Your task to perform on an android device: delete browsing data in the chrome app Image 0: 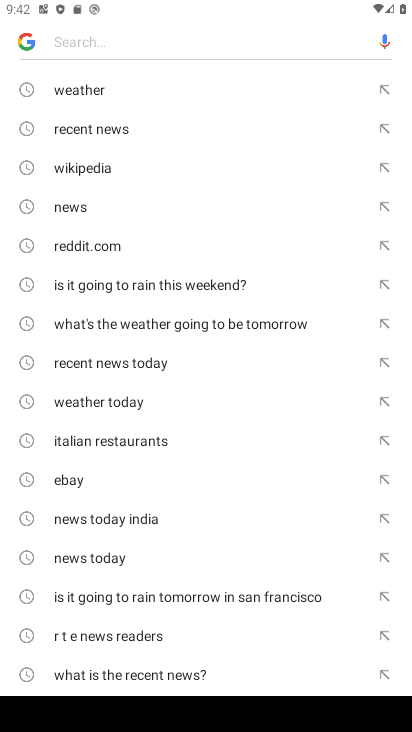
Step 0: press home button
Your task to perform on an android device: delete browsing data in the chrome app Image 1: 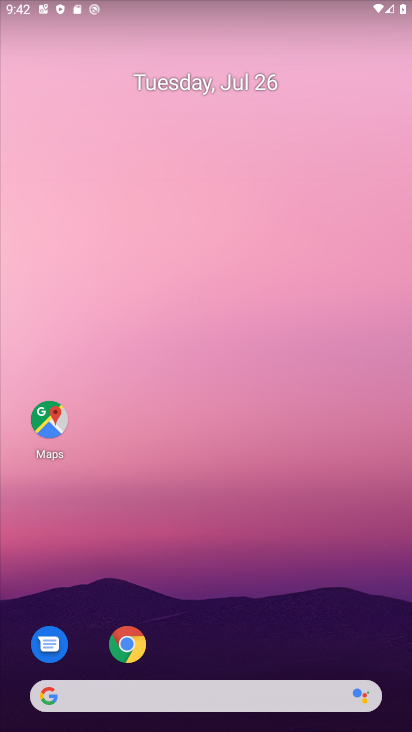
Step 1: click (125, 647)
Your task to perform on an android device: delete browsing data in the chrome app Image 2: 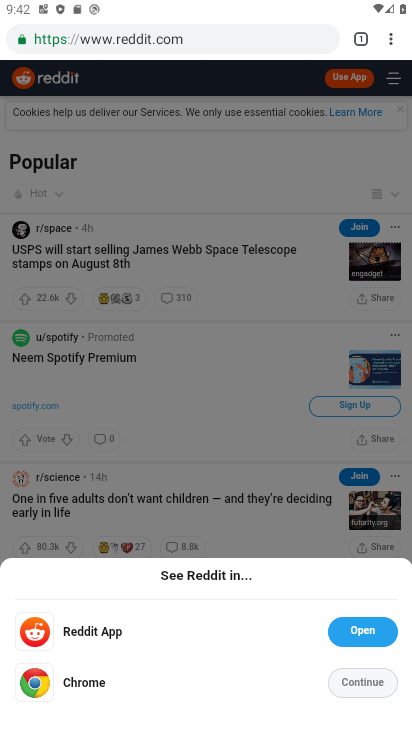
Step 2: click (391, 36)
Your task to perform on an android device: delete browsing data in the chrome app Image 3: 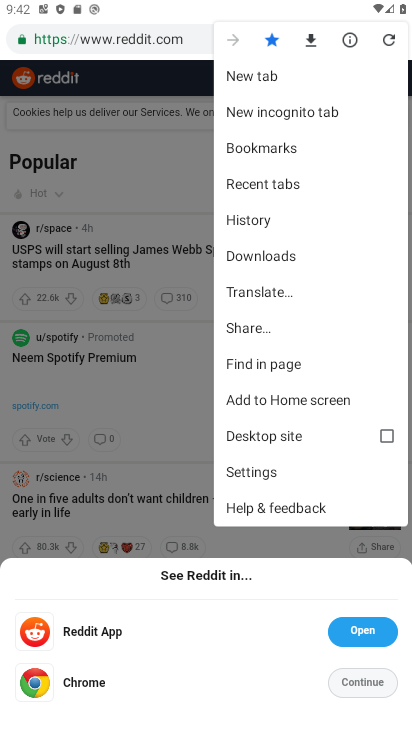
Step 3: click (251, 217)
Your task to perform on an android device: delete browsing data in the chrome app Image 4: 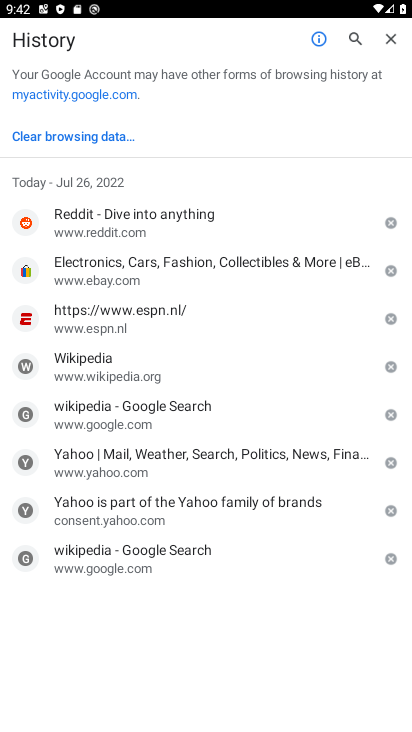
Step 4: click (81, 139)
Your task to perform on an android device: delete browsing data in the chrome app Image 5: 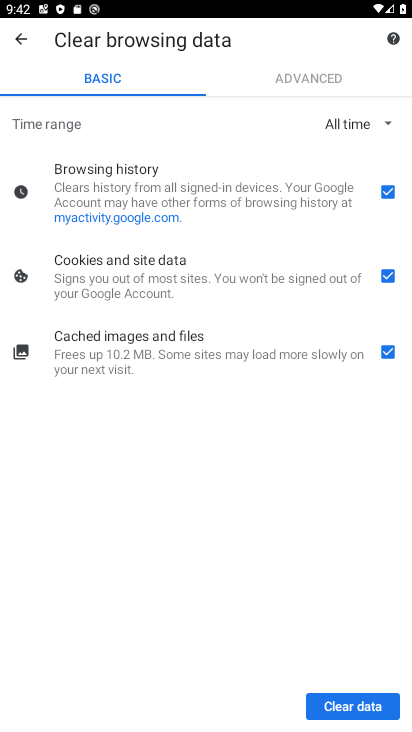
Step 5: click (362, 706)
Your task to perform on an android device: delete browsing data in the chrome app Image 6: 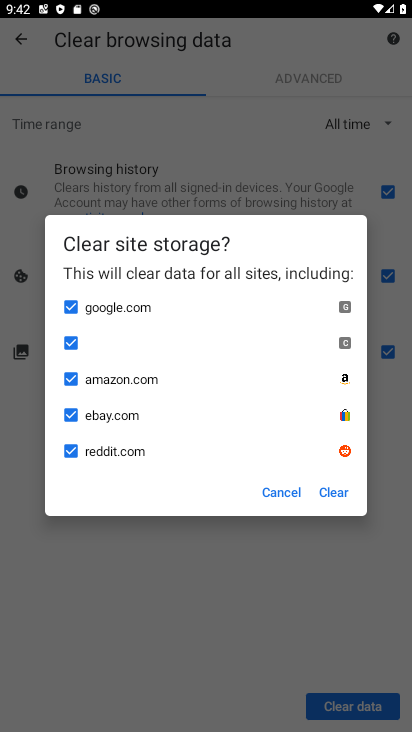
Step 6: click (322, 506)
Your task to perform on an android device: delete browsing data in the chrome app Image 7: 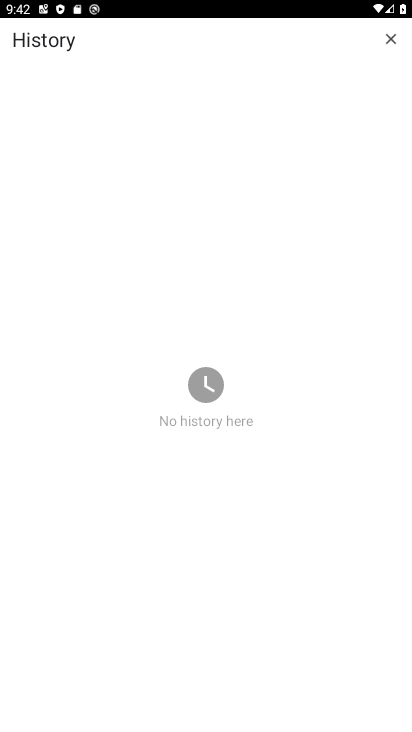
Step 7: task complete